Your task to perform on an android device: open app "Venmo" (install if not already installed) and enter user name: "bleedings@gmail.com" and password: "copied" Image 0: 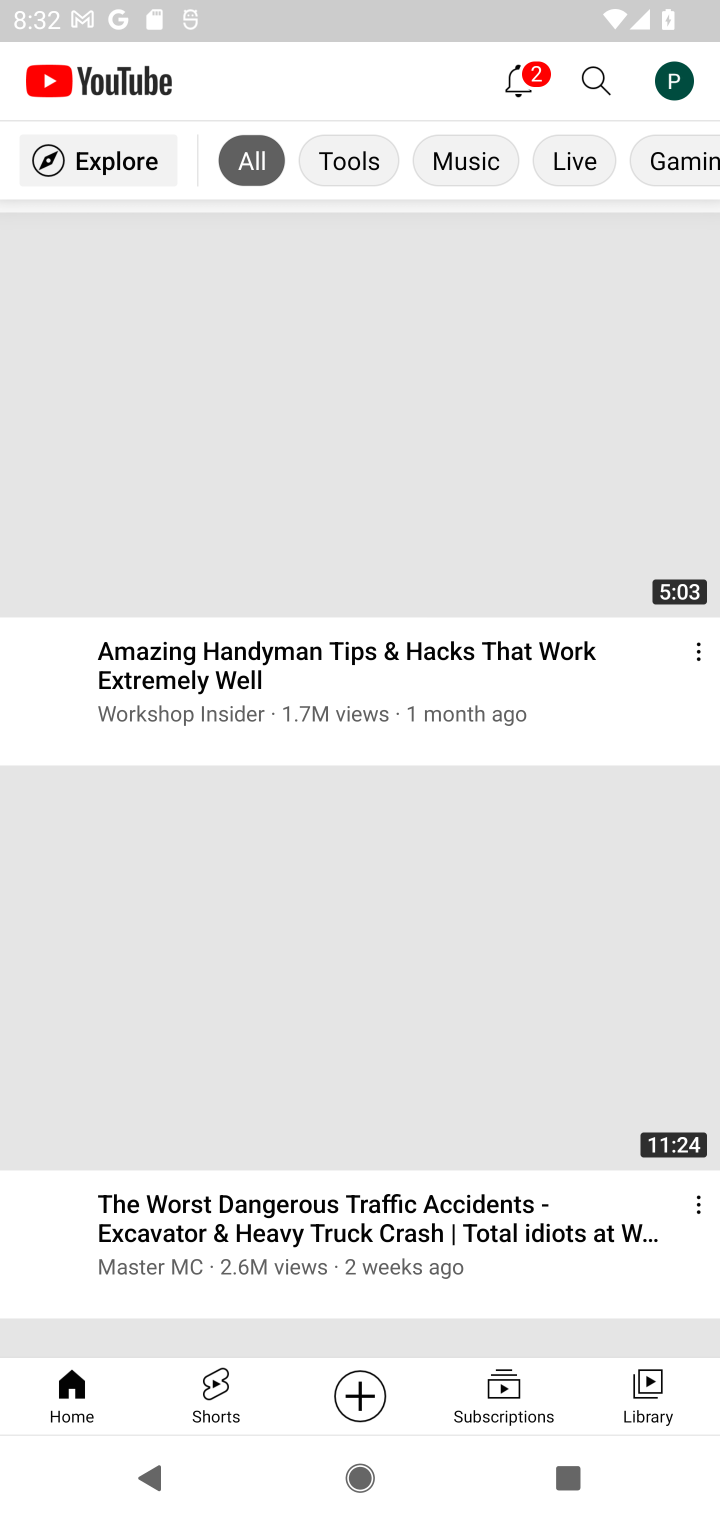
Step 0: press home button
Your task to perform on an android device: open app "Venmo" (install if not already installed) and enter user name: "bleedings@gmail.com" and password: "copied" Image 1: 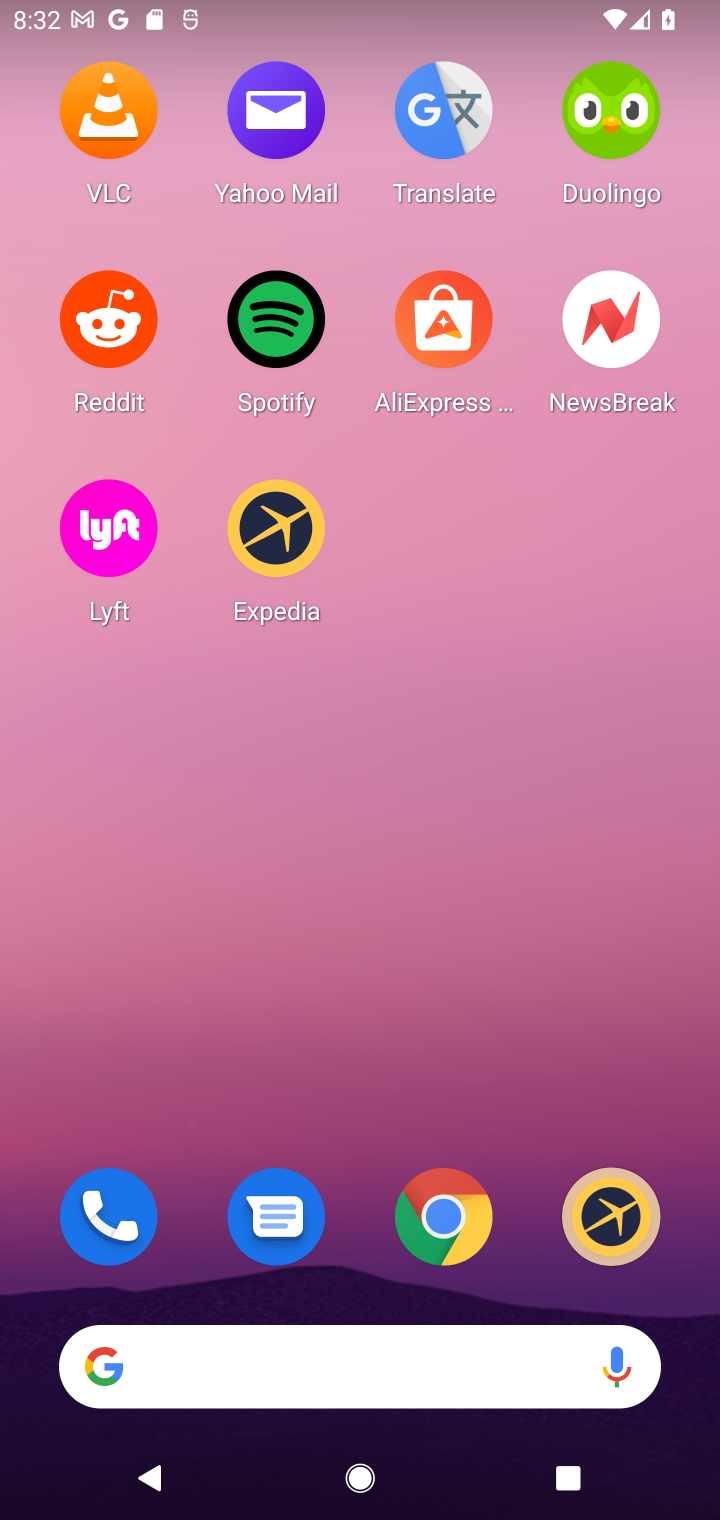
Step 1: press home button
Your task to perform on an android device: open app "Venmo" (install if not already installed) and enter user name: "bleedings@gmail.com" and password: "copied" Image 2: 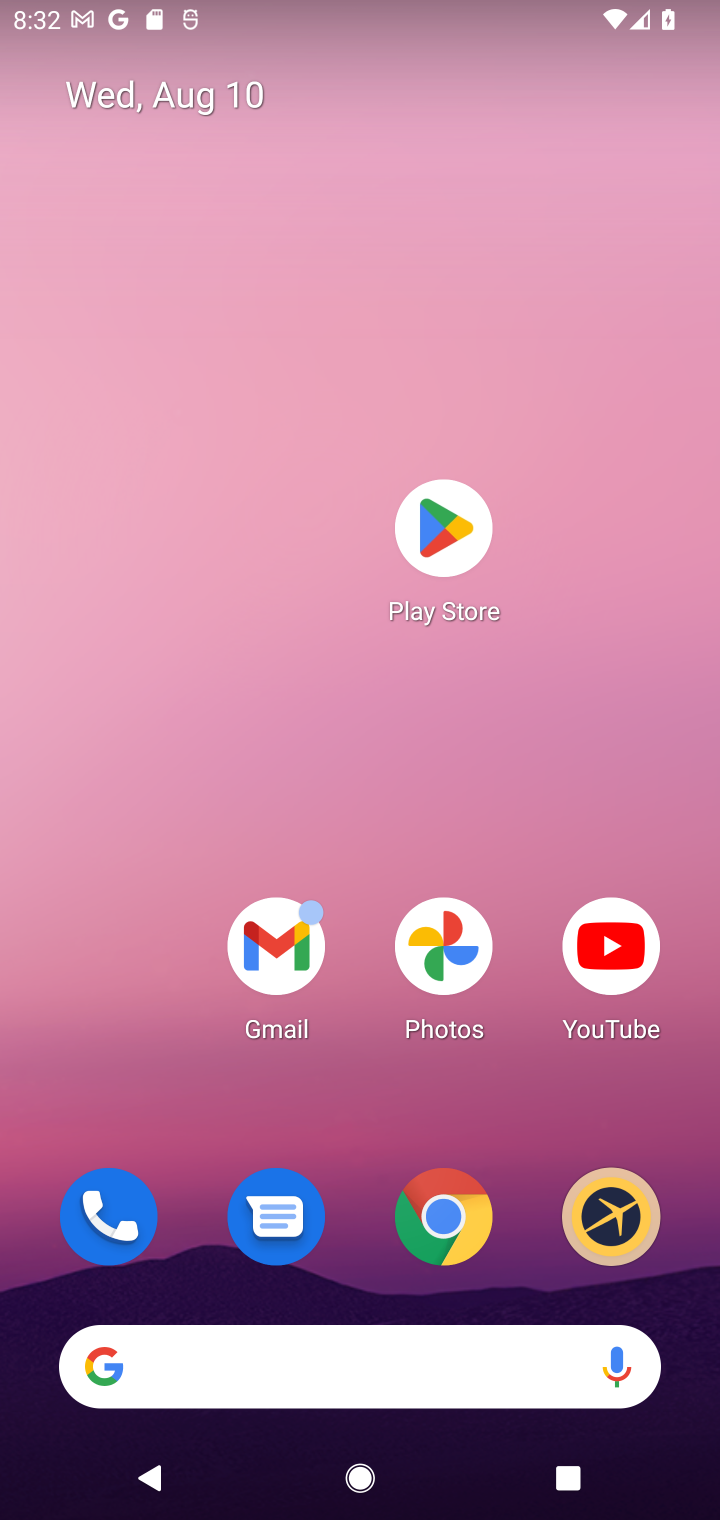
Step 2: click (441, 540)
Your task to perform on an android device: open app "Venmo" (install if not already installed) and enter user name: "bleedings@gmail.com" and password: "copied" Image 3: 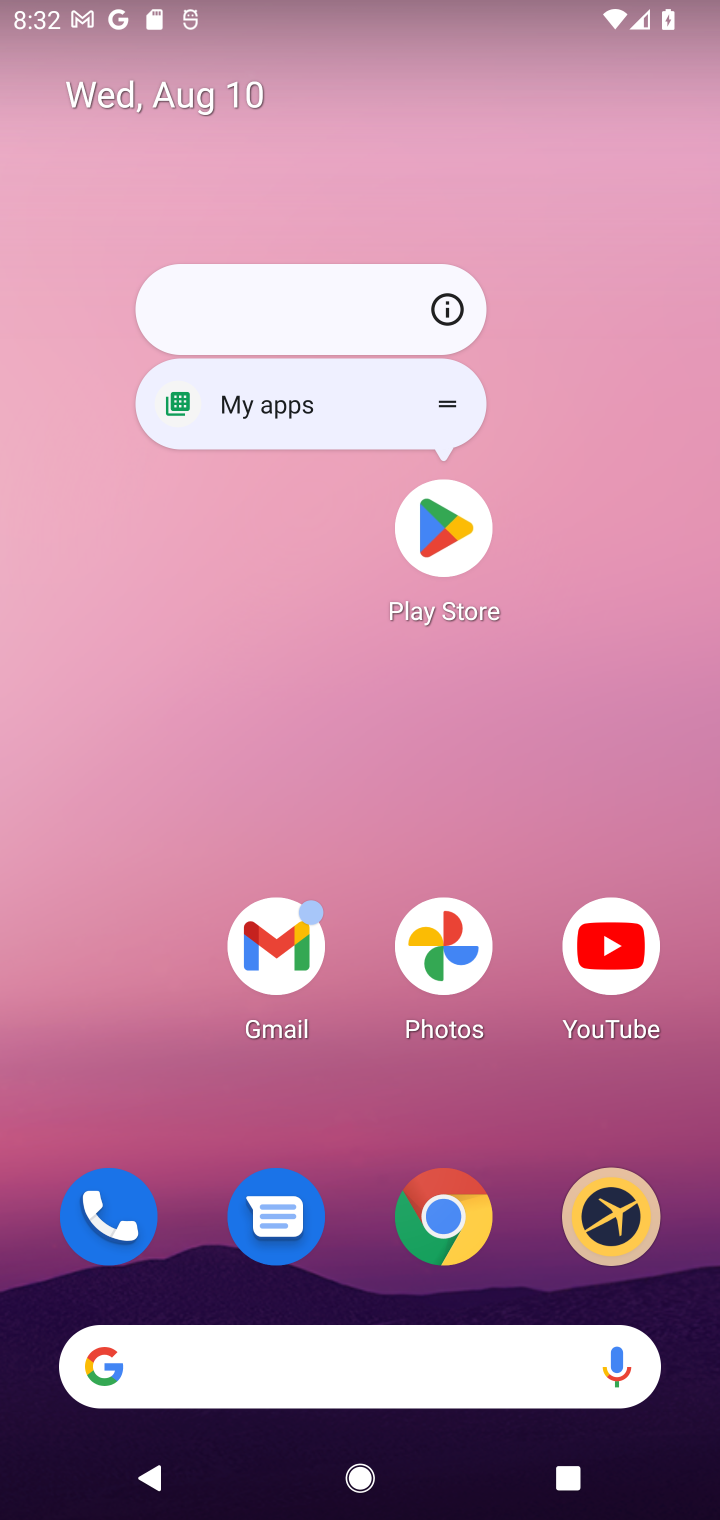
Step 3: click (441, 544)
Your task to perform on an android device: open app "Venmo" (install if not already installed) and enter user name: "bleedings@gmail.com" and password: "copied" Image 4: 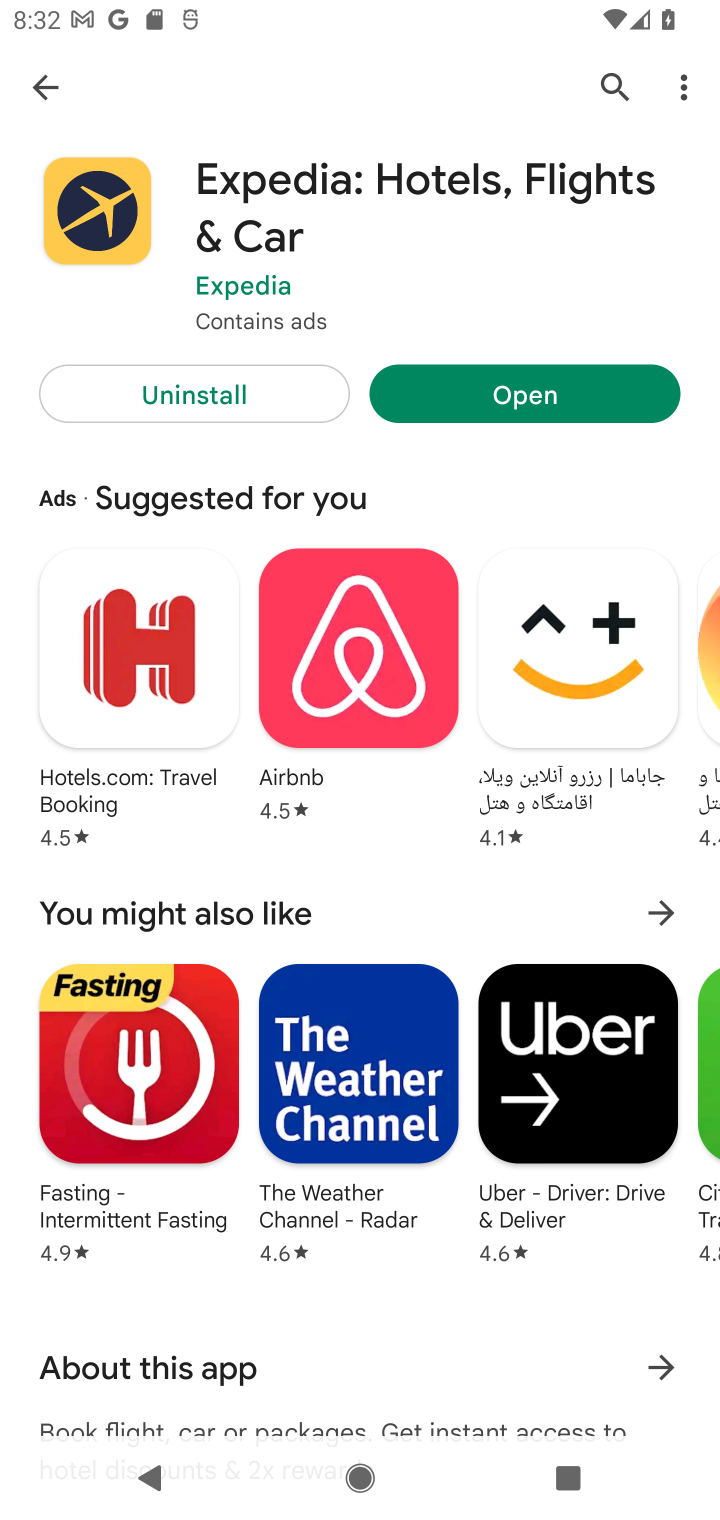
Step 4: click (441, 544)
Your task to perform on an android device: open app "Venmo" (install if not already installed) and enter user name: "bleedings@gmail.com" and password: "copied" Image 5: 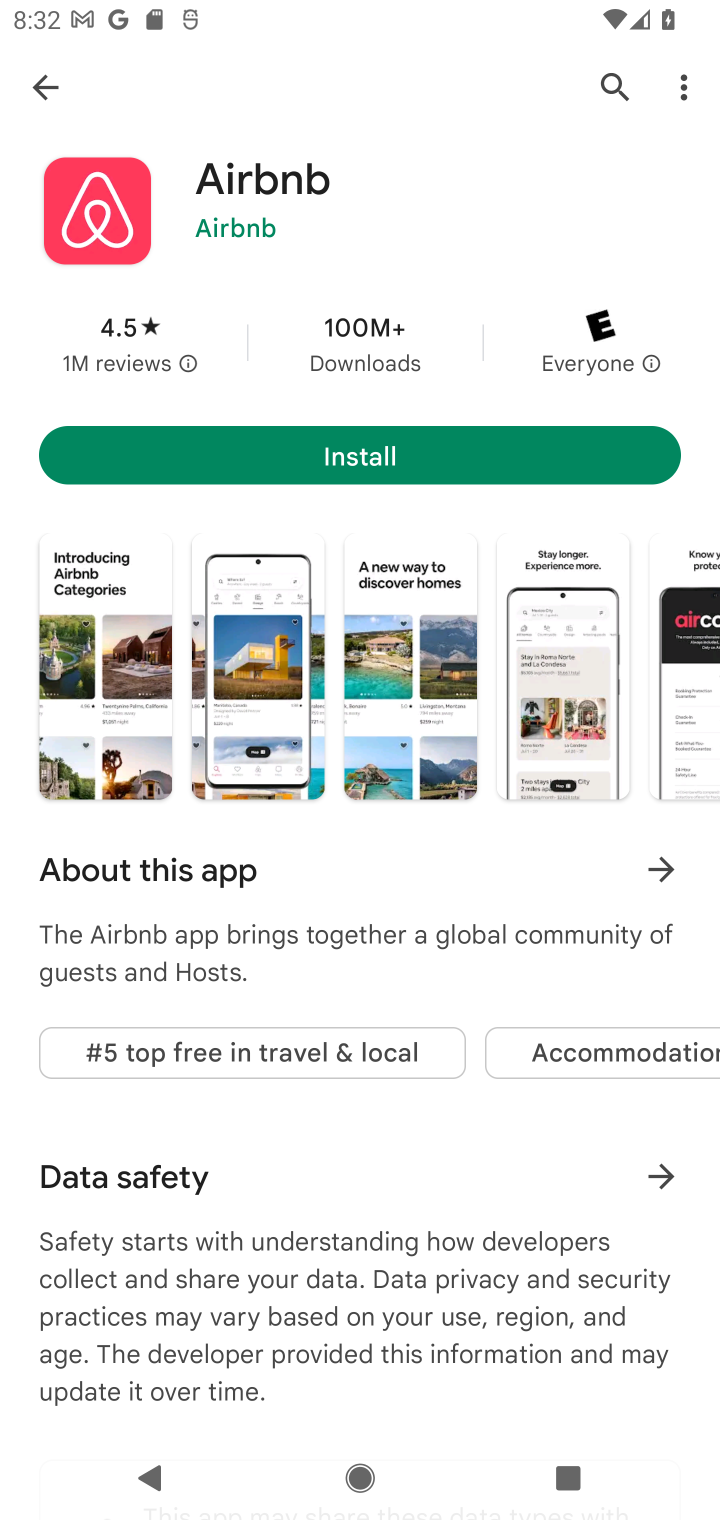
Step 5: click (614, 72)
Your task to perform on an android device: open app "Venmo" (install if not already installed) and enter user name: "bleedings@gmail.com" and password: "copied" Image 6: 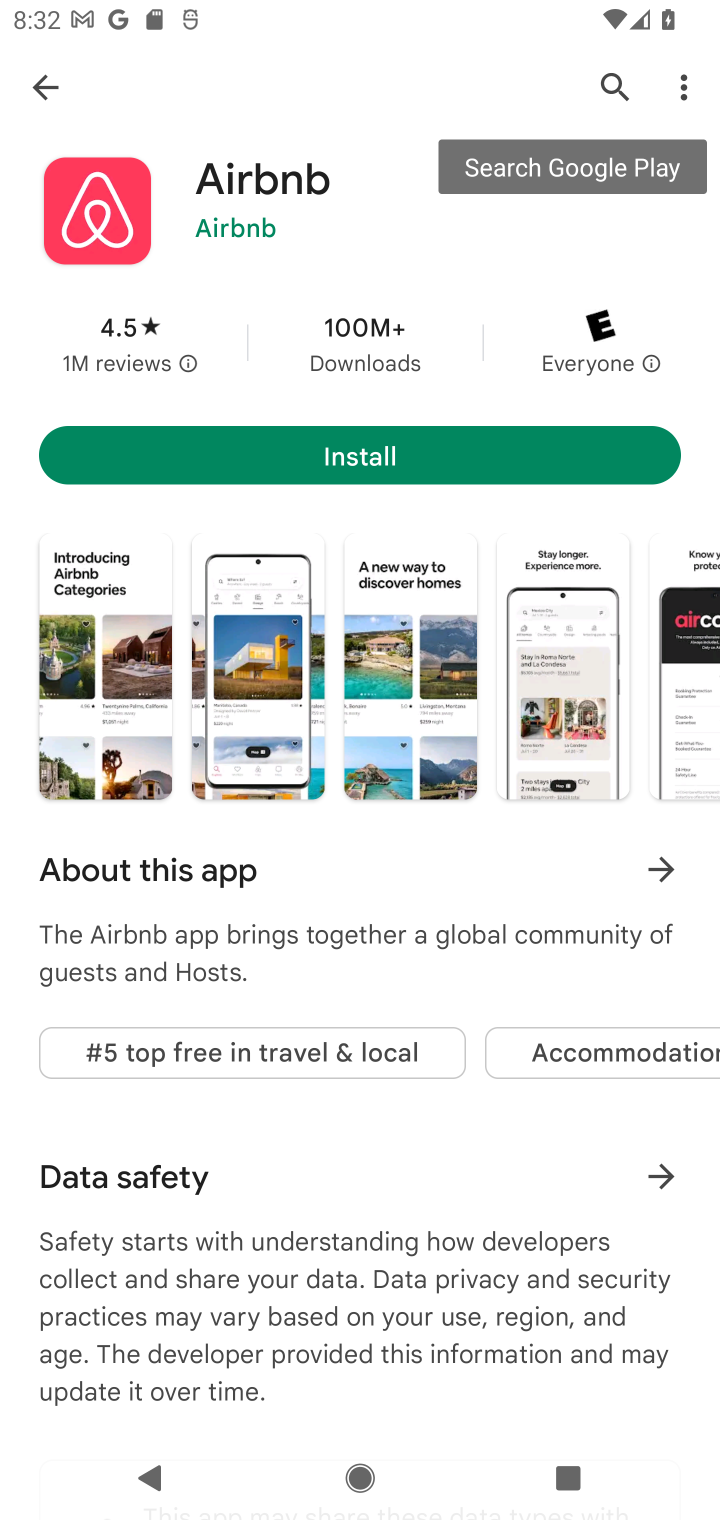
Step 6: click (611, 81)
Your task to perform on an android device: open app "Venmo" (install if not already installed) and enter user name: "bleedings@gmail.com" and password: "copied" Image 7: 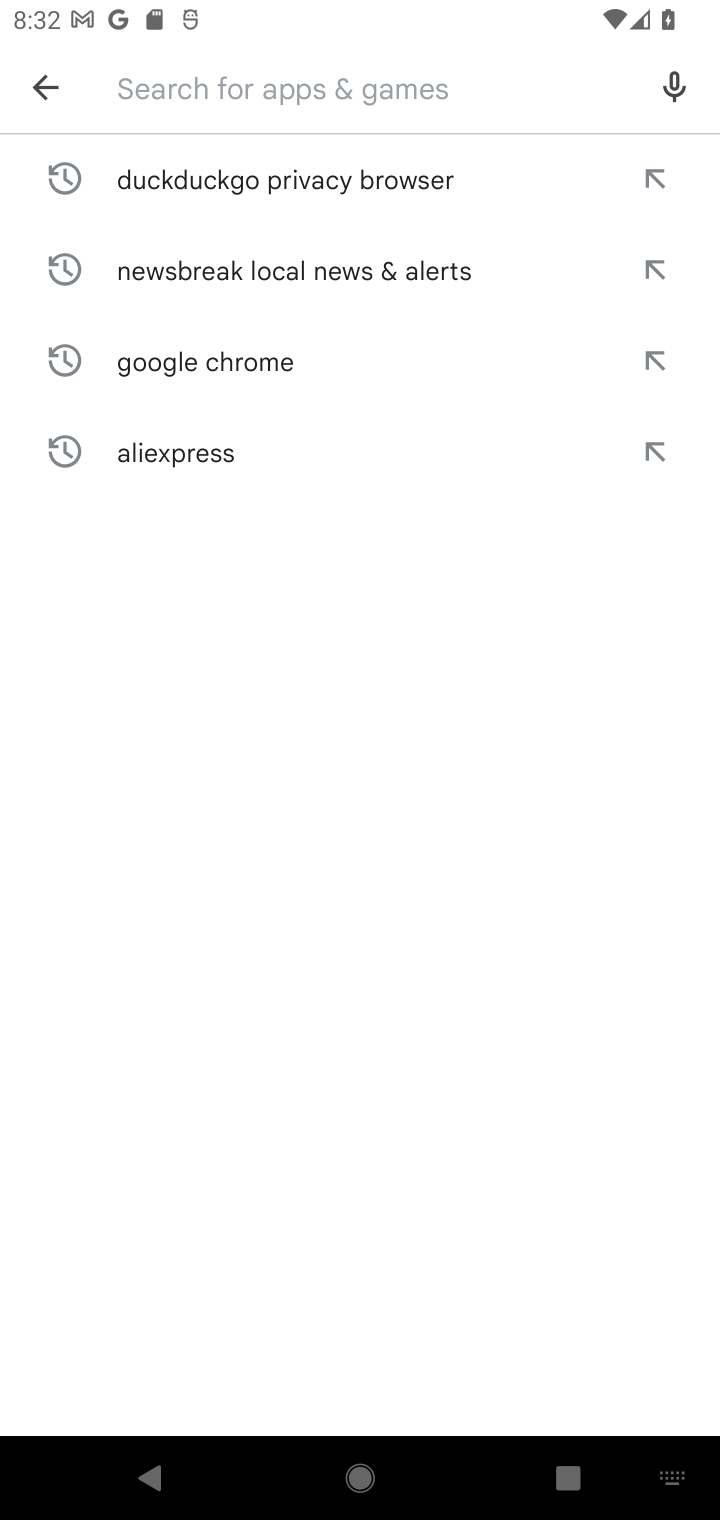
Step 7: type "Venmo"
Your task to perform on an android device: open app "Venmo" (install if not already installed) and enter user name: "bleedings@gmail.com" and password: "copied" Image 8: 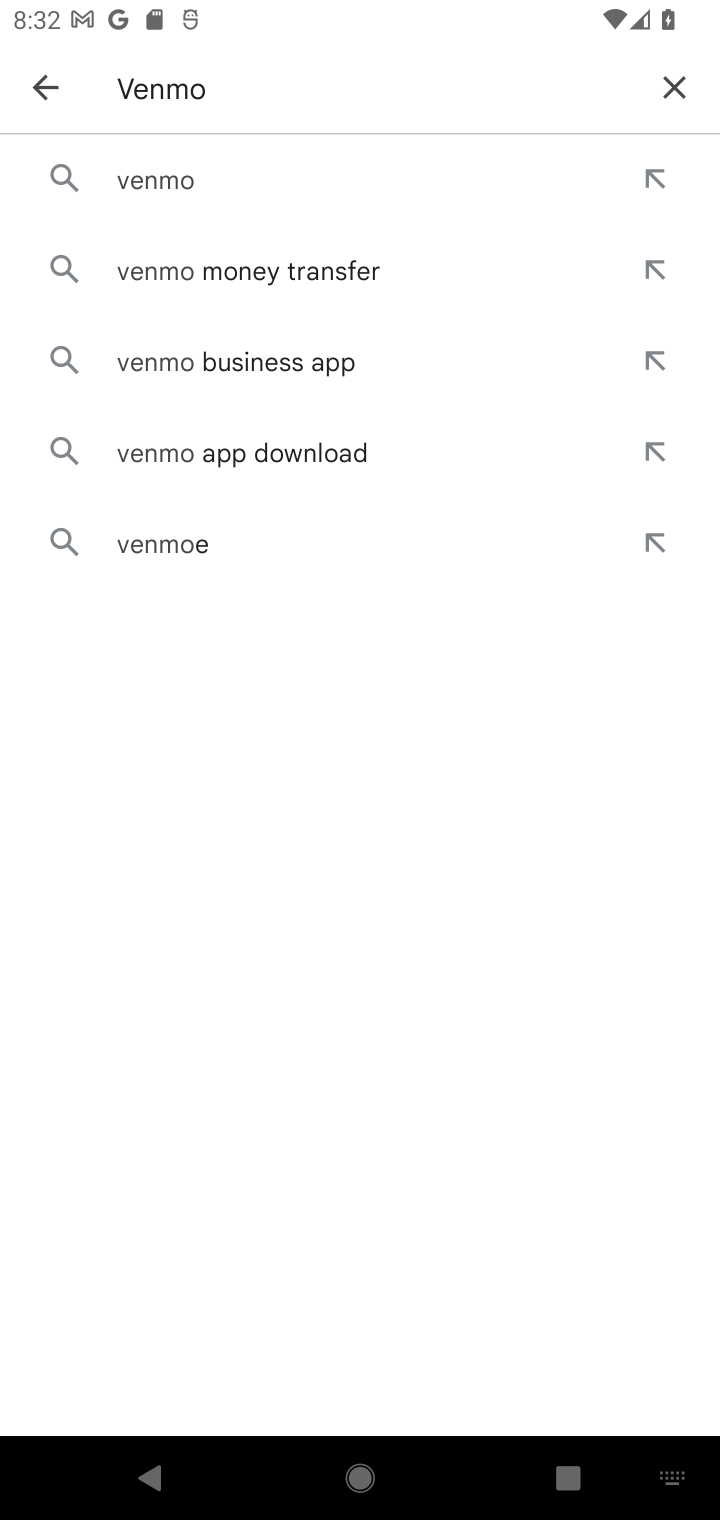
Step 8: click (162, 173)
Your task to perform on an android device: open app "Venmo" (install if not already installed) and enter user name: "bleedings@gmail.com" and password: "copied" Image 9: 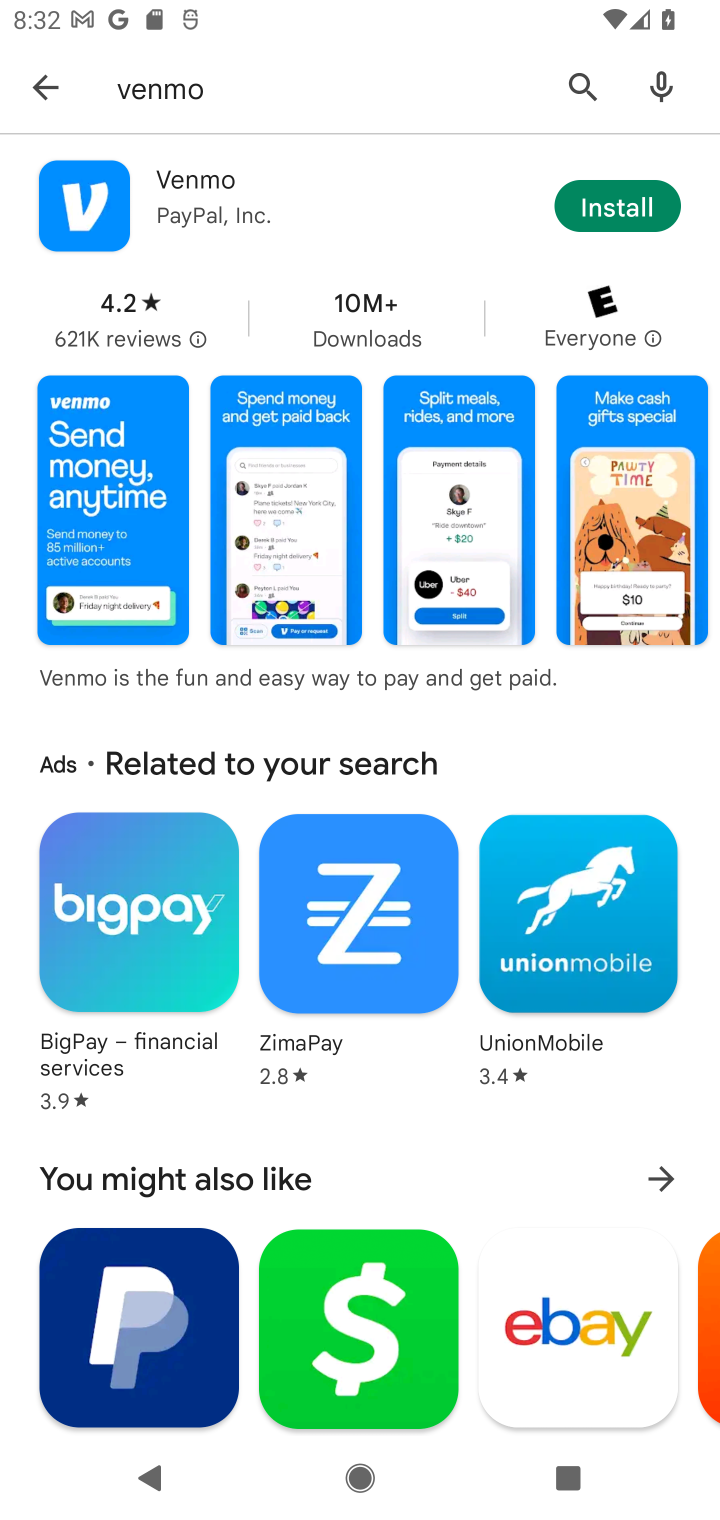
Step 9: click (631, 206)
Your task to perform on an android device: open app "Venmo" (install if not already installed) and enter user name: "bleedings@gmail.com" and password: "copied" Image 10: 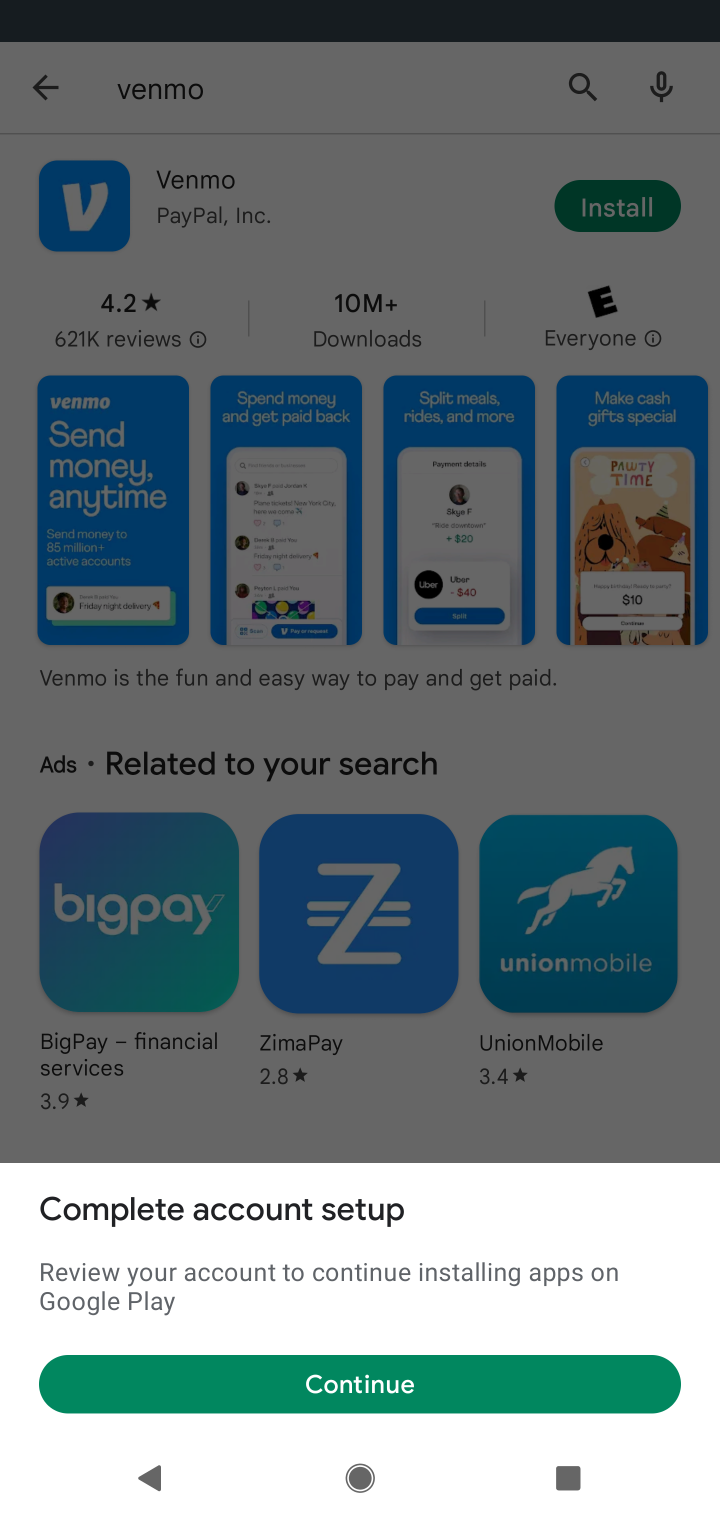
Step 10: click (340, 1379)
Your task to perform on an android device: open app "Venmo" (install if not already installed) and enter user name: "bleedings@gmail.com" and password: "copied" Image 11: 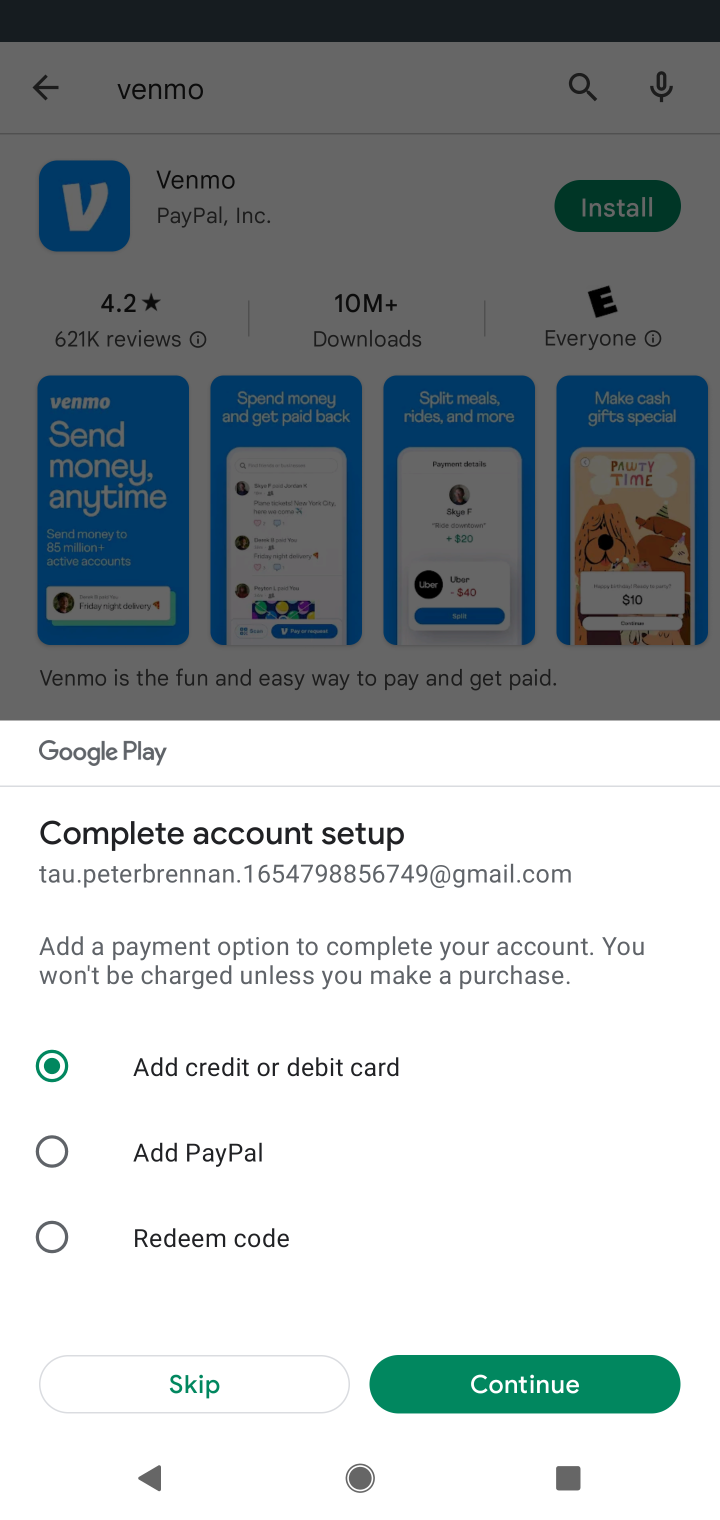
Step 11: click (233, 1375)
Your task to perform on an android device: open app "Venmo" (install if not already installed) and enter user name: "bleedings@gmail.com" and password: "copied" Image 12: 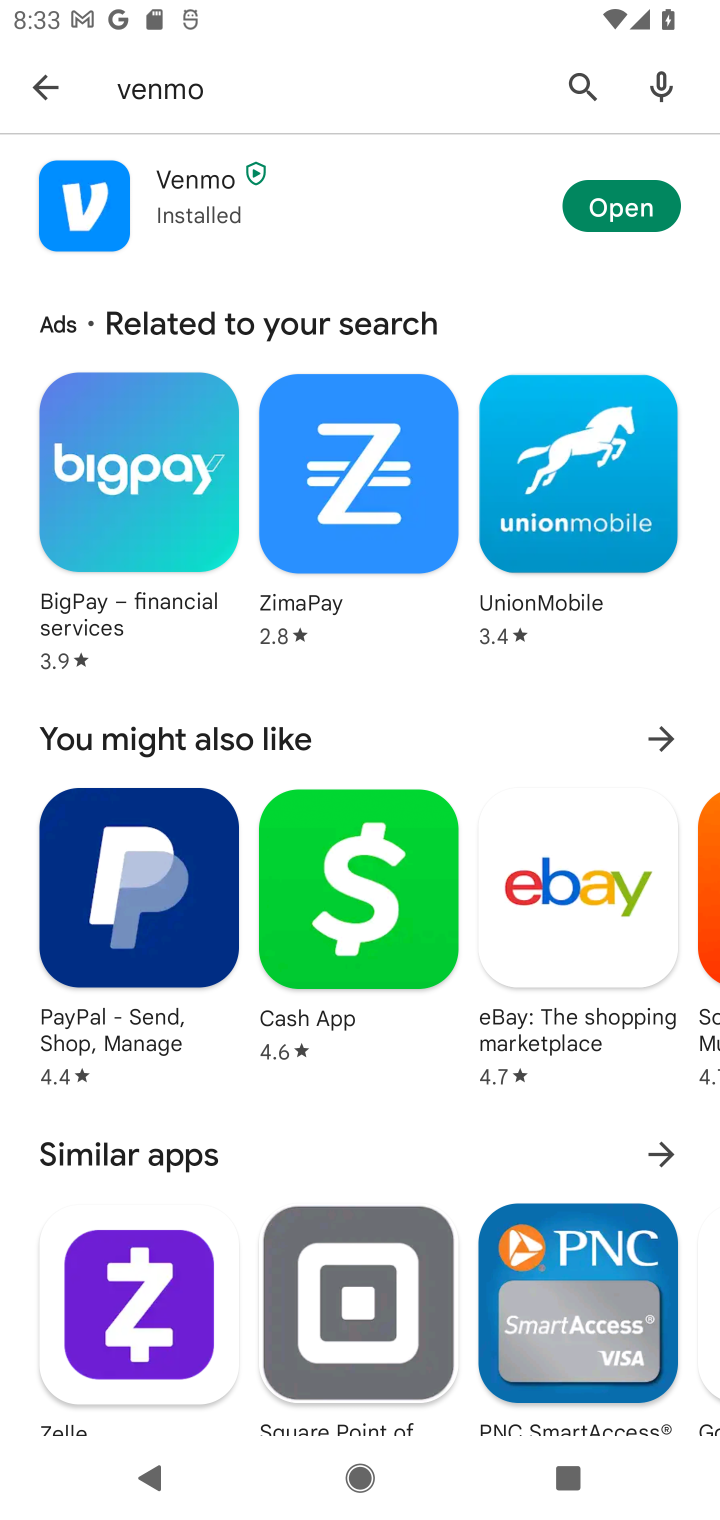
Step 12: click (637, 199)
Your task to perform on an android device: open app "Venmo" (install if not already installed) and enter user name: "bleedings@gmail.com" and password: "copied" Image 13: 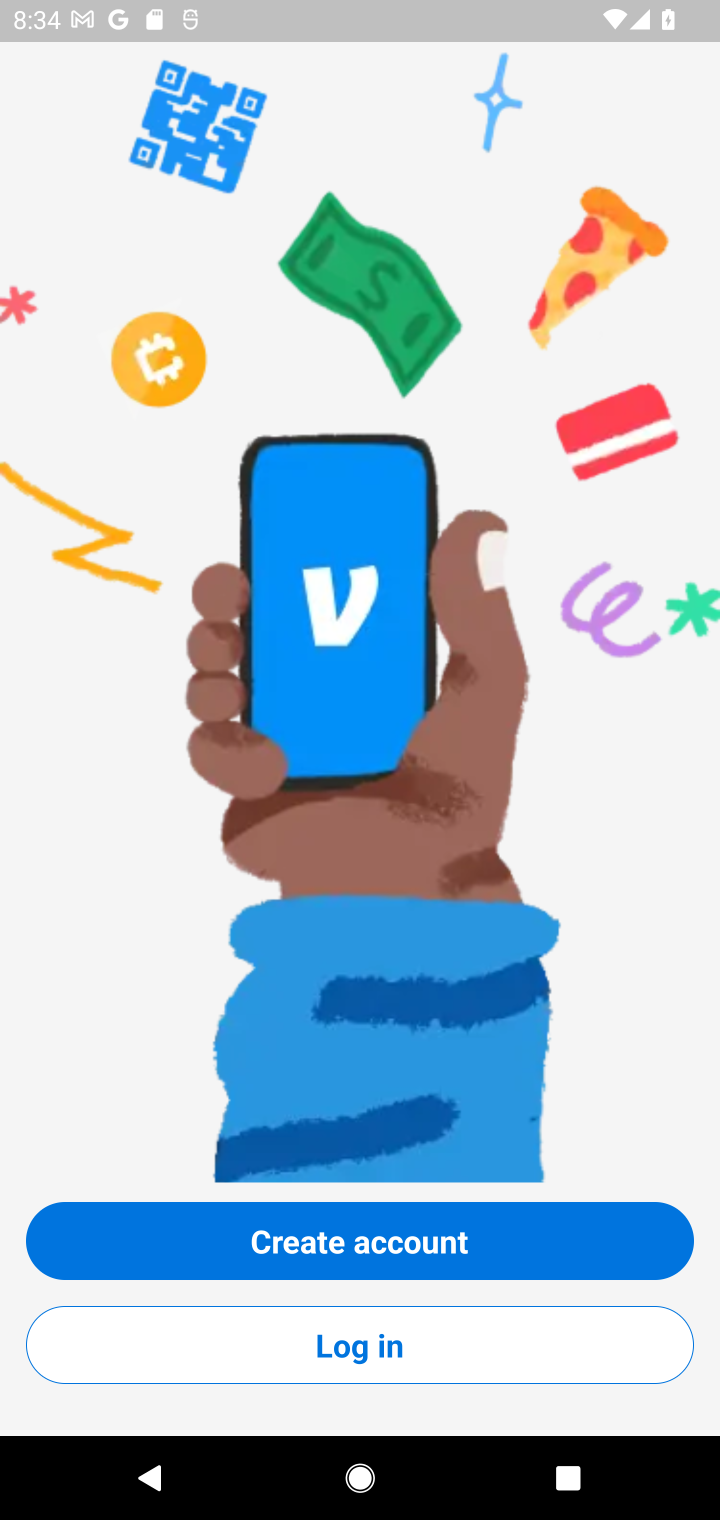
Step 13: click (369, 1333)
Your task to perform on an android device: open app "Venmo" (install if not already installed) and enter user name: "bleedings@gmail.com" and password: "copied" Image 14: 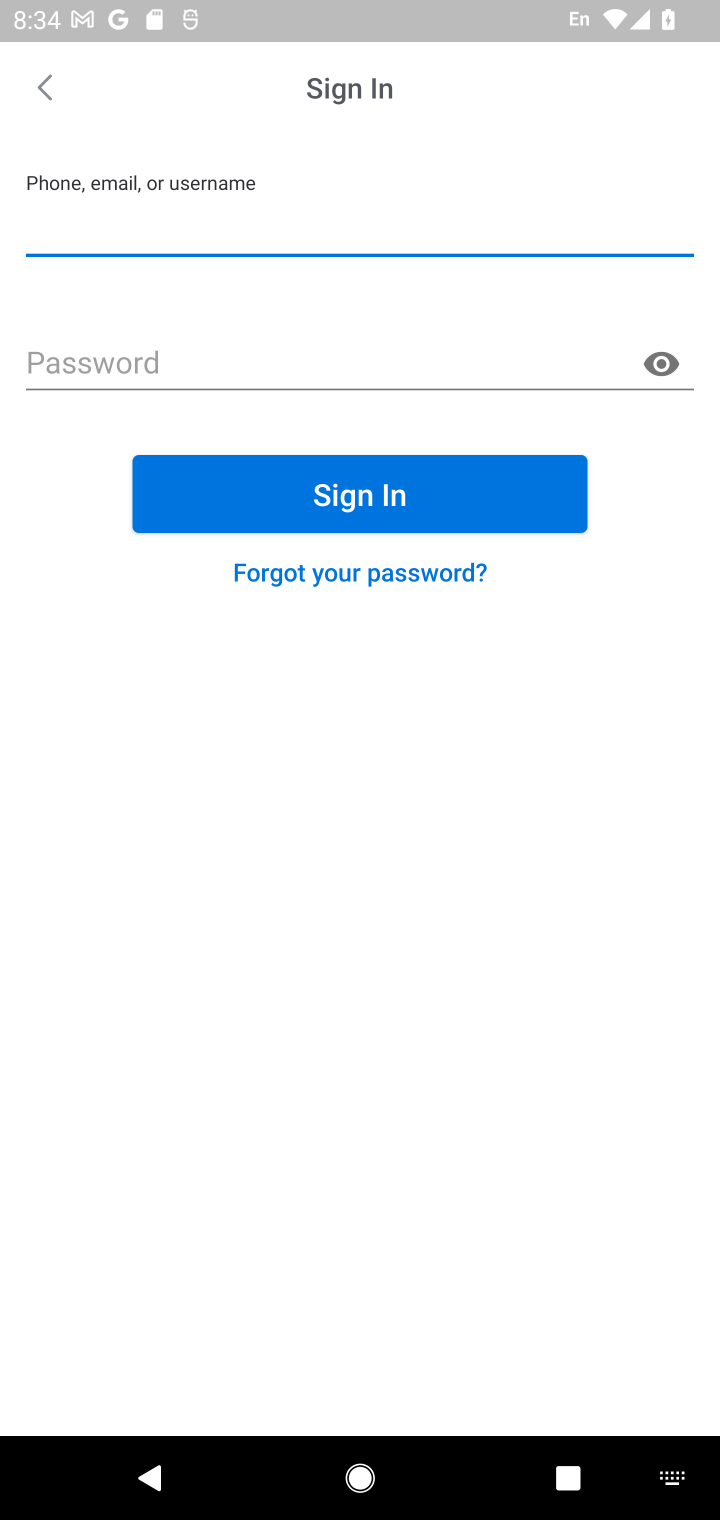
Step 14: type "bleedings@gmail.com"
Your task to perform on an android device: open app "Venmo" (install if not already installed) and enter user name: "bleedings@gmail.com" and password: "copied" Image 15: 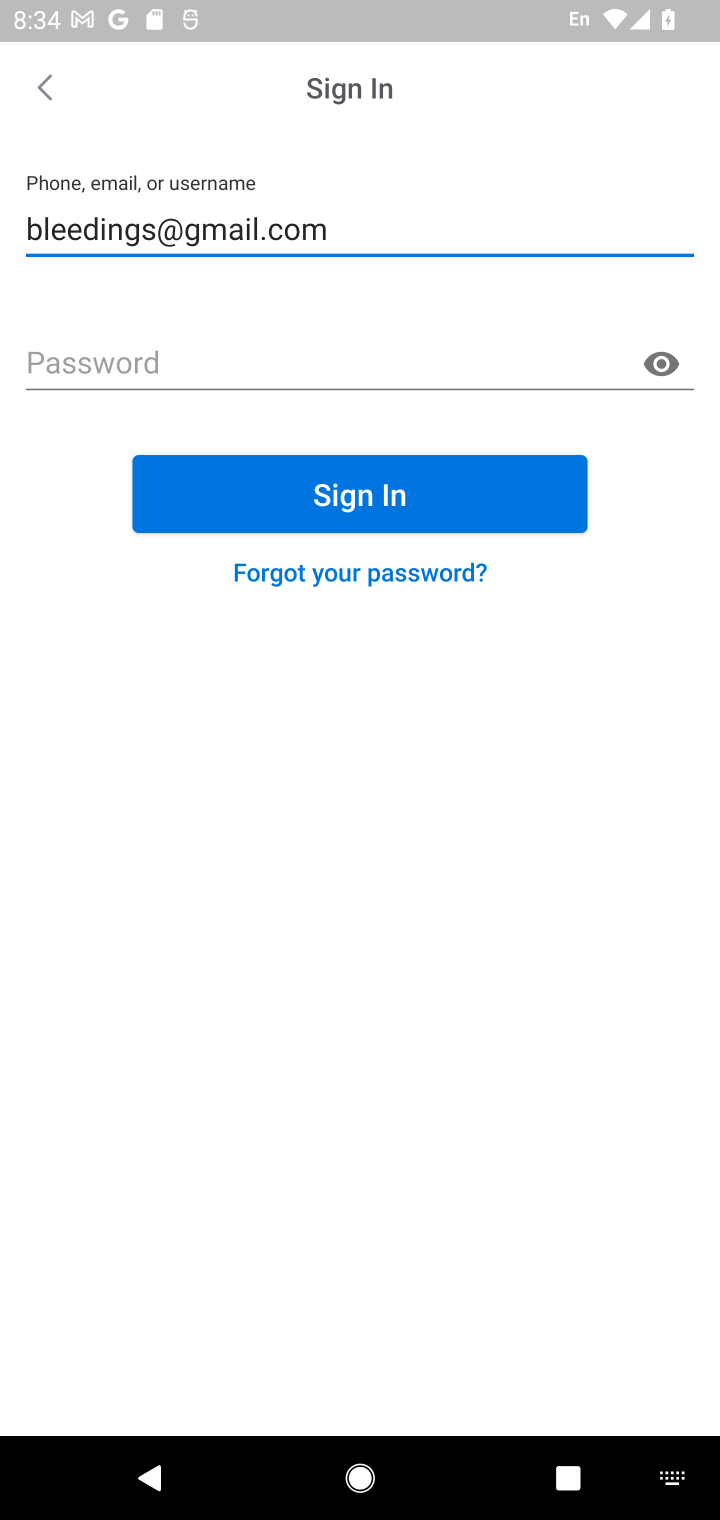
Step 15: click (145, 337)
Your task to perform on an android device: open app "Venmo" (install if not already installed) and enter user name: "bleedings@gmail.com" and password: "copied" Image 16: 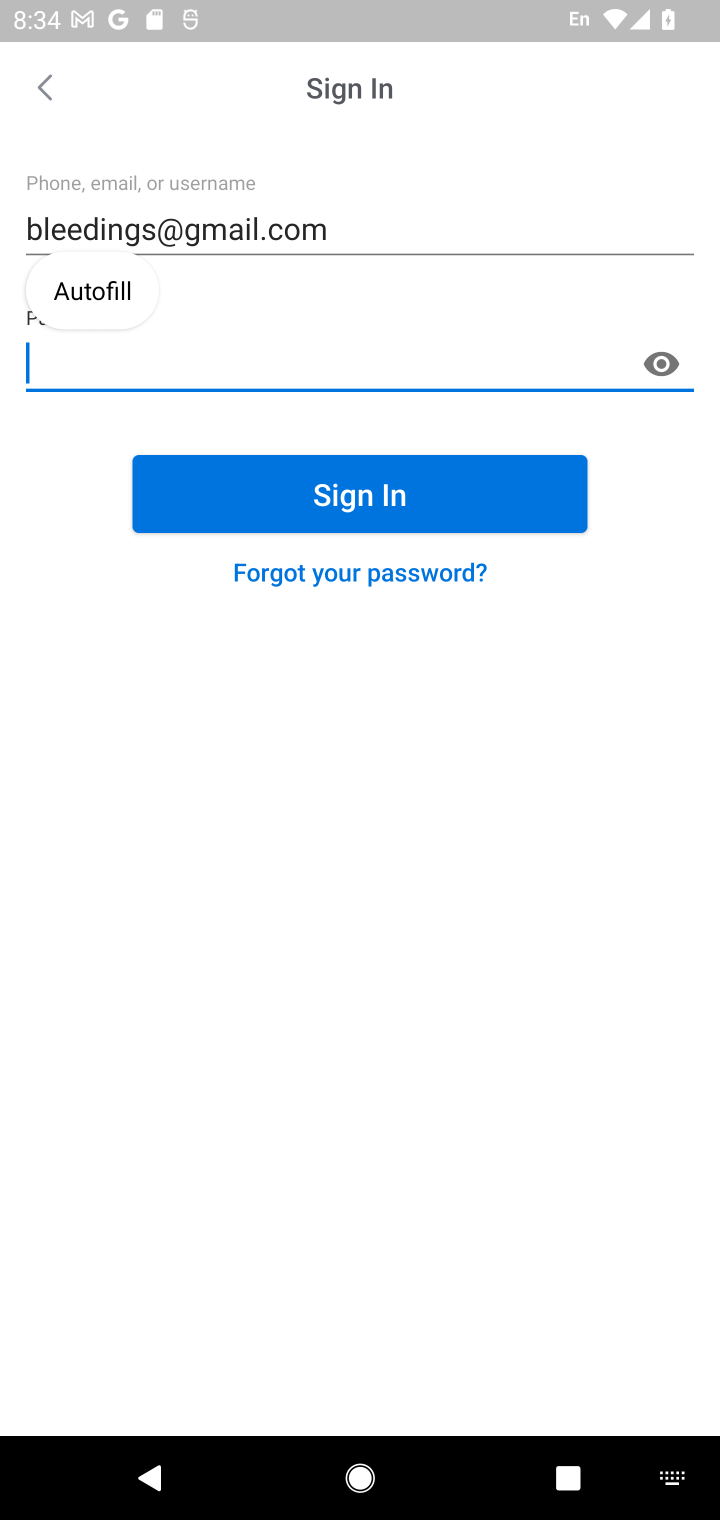
Step 16: type "copied"
Your task to perform on an android device: open app "Venmo" (install if not already installed) and enter user name: "bleedings@gmail.com" and password: "copied" Image 17: 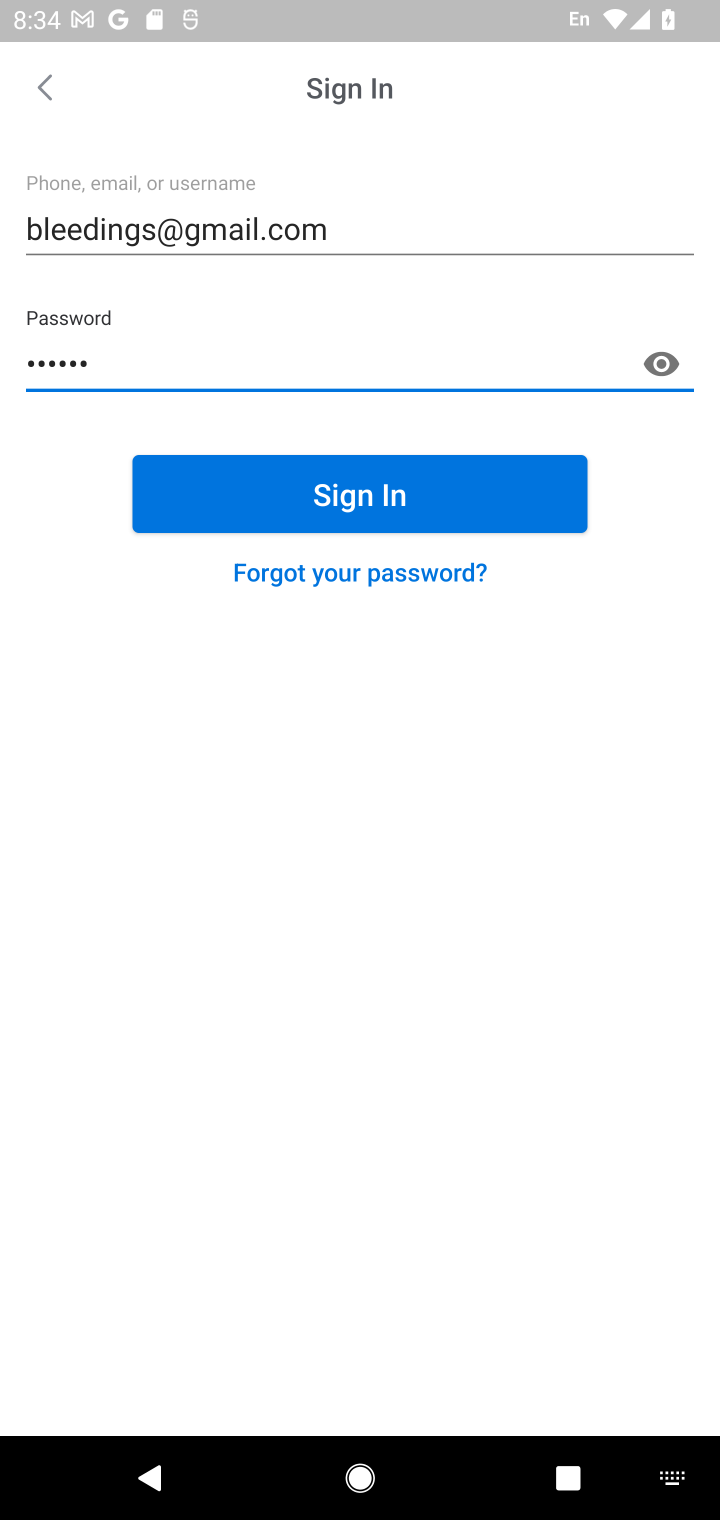
Step 17: task complete